Your task to perform on an android device: Open the map Image 0: 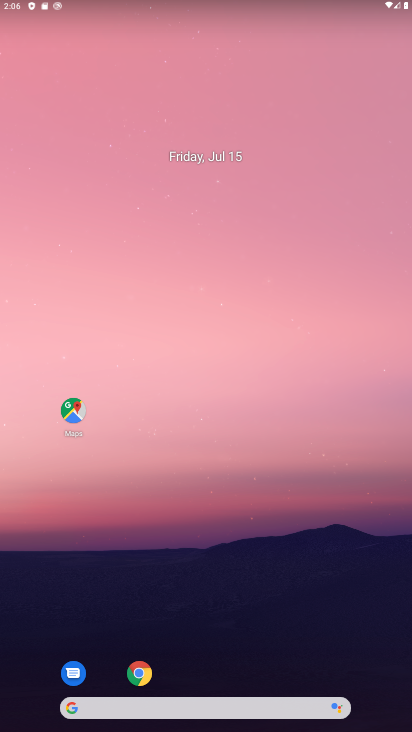
Step 0: drag from (227, 697) to (273, 154)
Your task to perform on an android device: Open the map Image 1: 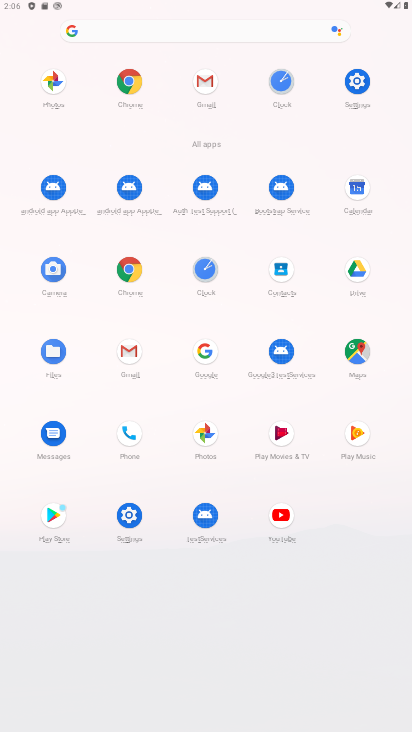
Step 1: click (357, 345)
Your task to perform on an android device: Open the map Image 2: 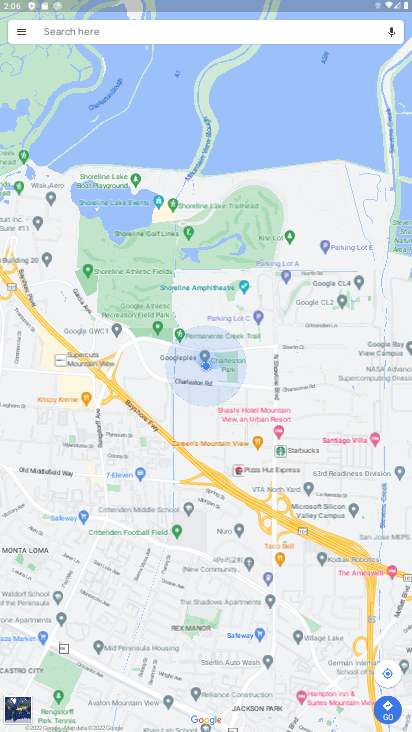
Step 2: task complete